Your task to perform on an android device: Open Google Maps Image 0: 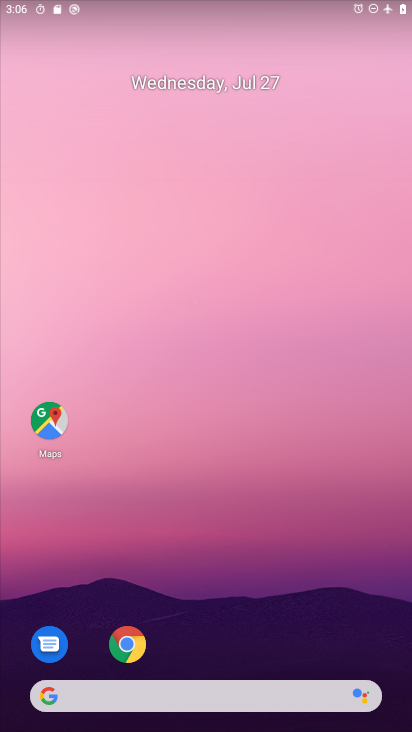
Step 0: drag from (169, 623) to (151, 24)
Your task to perform on an android device: Open Google Maps Image 1: 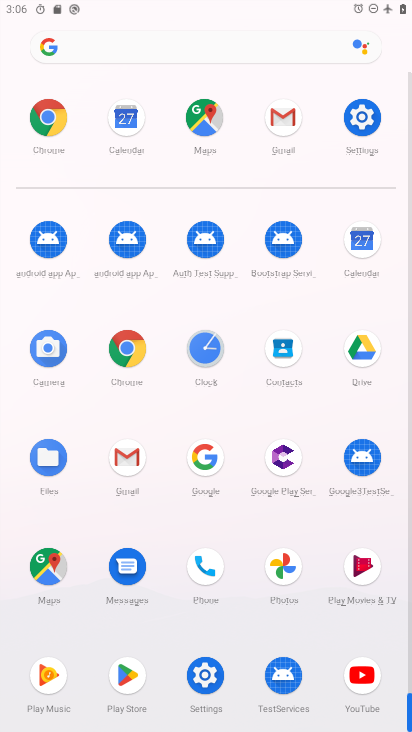
Step 1: click (43, 571)
Your task to perform on an android device: Open Google Maps Image 2: 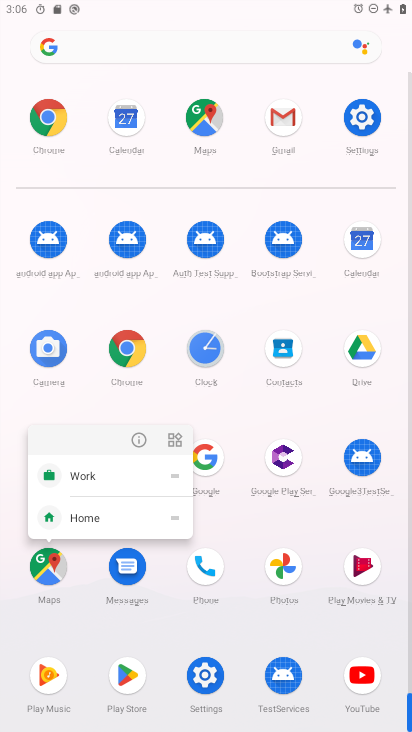
Step 2: click (132, 441)
Your task to perform on an android device: Open Google Maps Image 3: 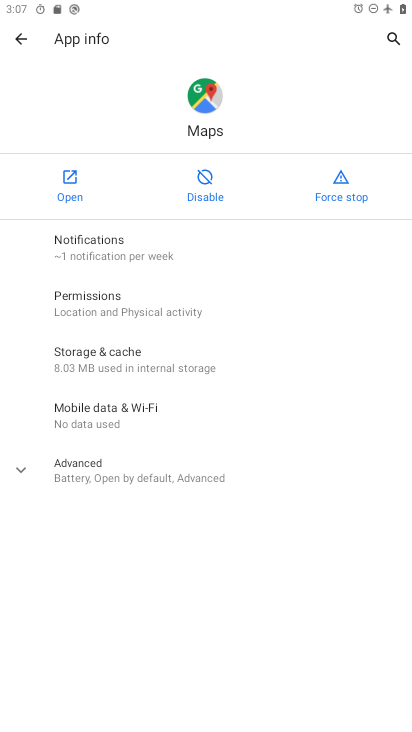
Step 3: click (65, 172)
Your task to perform on an android device: Open Google Maps Image 4: 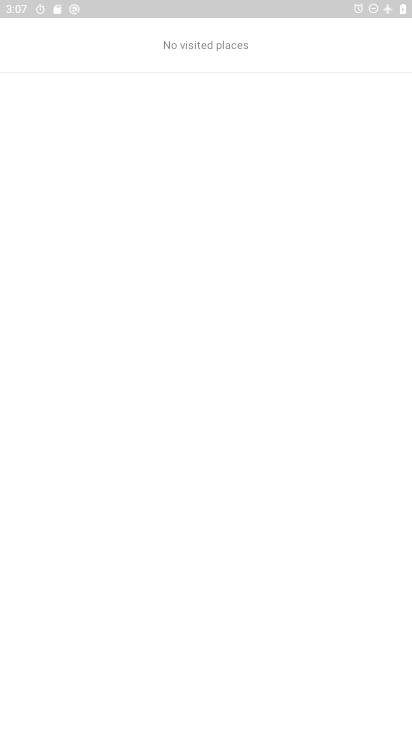
Step 4: task complete